Your task to perform on an android device: Clear the cart on amazon. Add razer kraken to the cart on amazon Image 0: 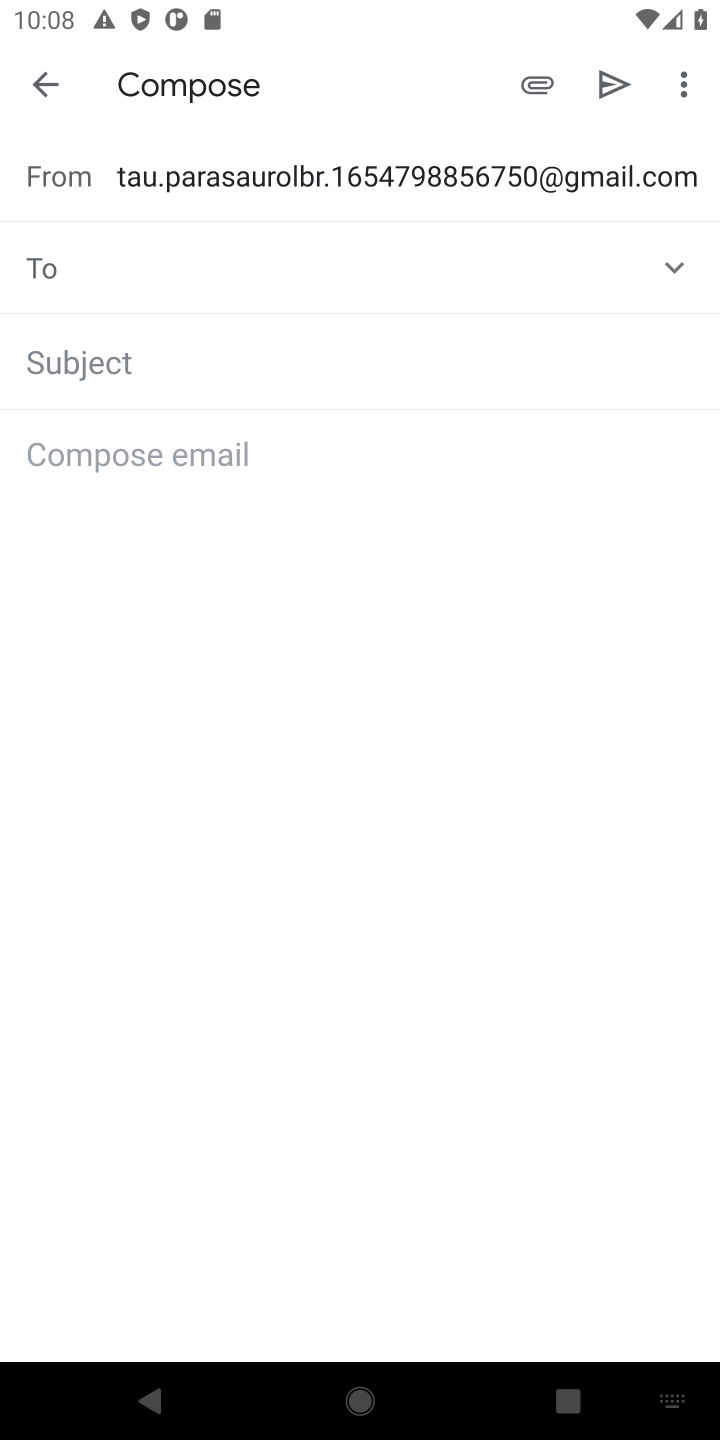
Step 0: press home button
Your task to perform on an android device: Clear the cart on amazon. Add razer kraken to the cart on amazon Image 1: 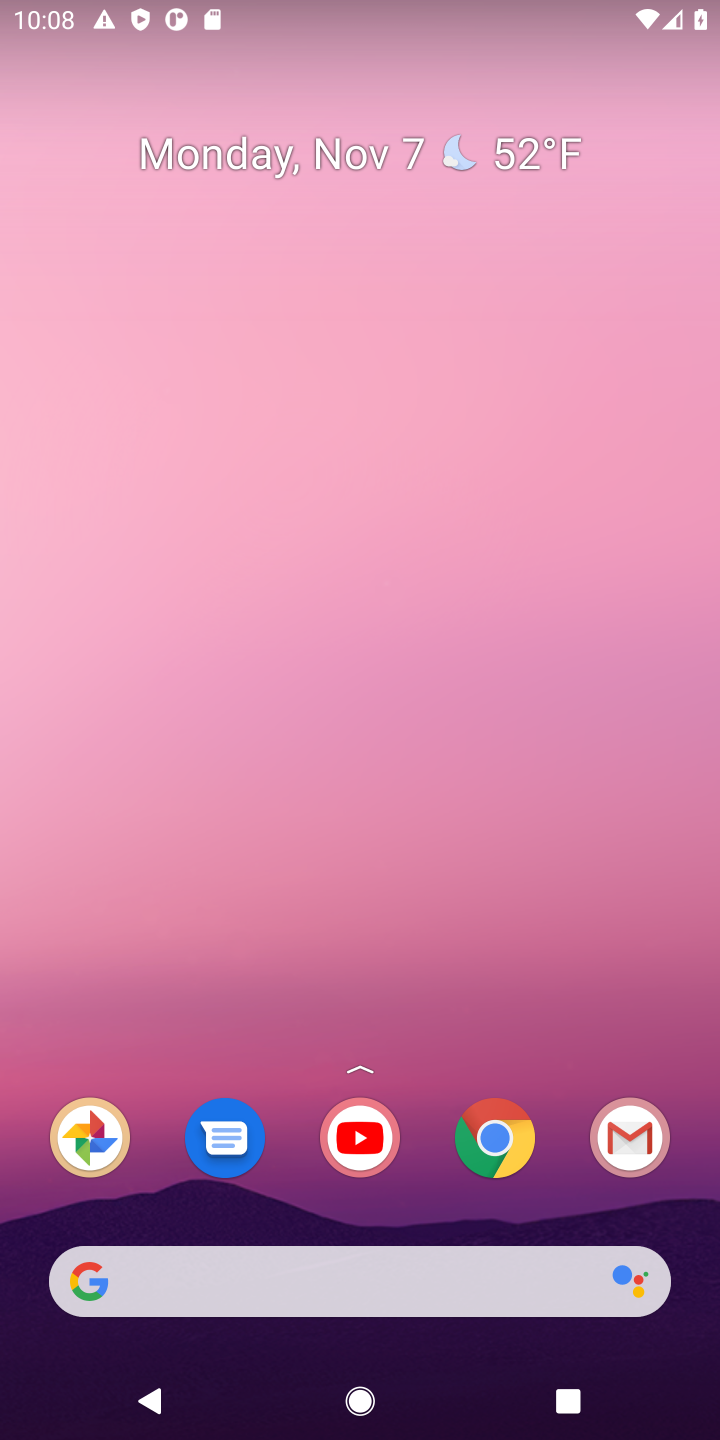
Step 1: drag from (429, 648) to (418, 124)
Your task to perform on an android device: Clear the cart on amazon. Add razer kraken to the cart on amazon Image 2: 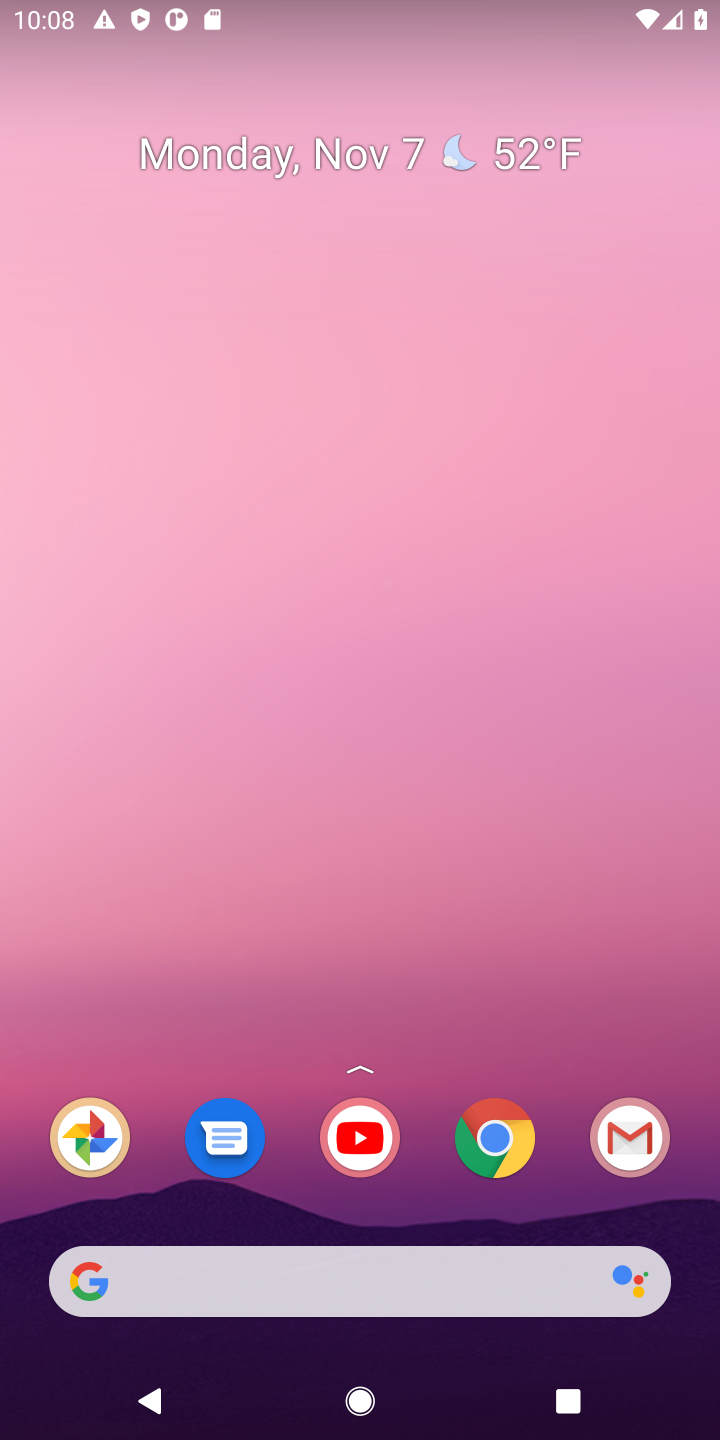
Step 2: drag from (455, 1096) to (467, 256)
Your task to perform on an android device: Clear the cart on amazon. Add razer kraken to the cart on amazon Image 3: 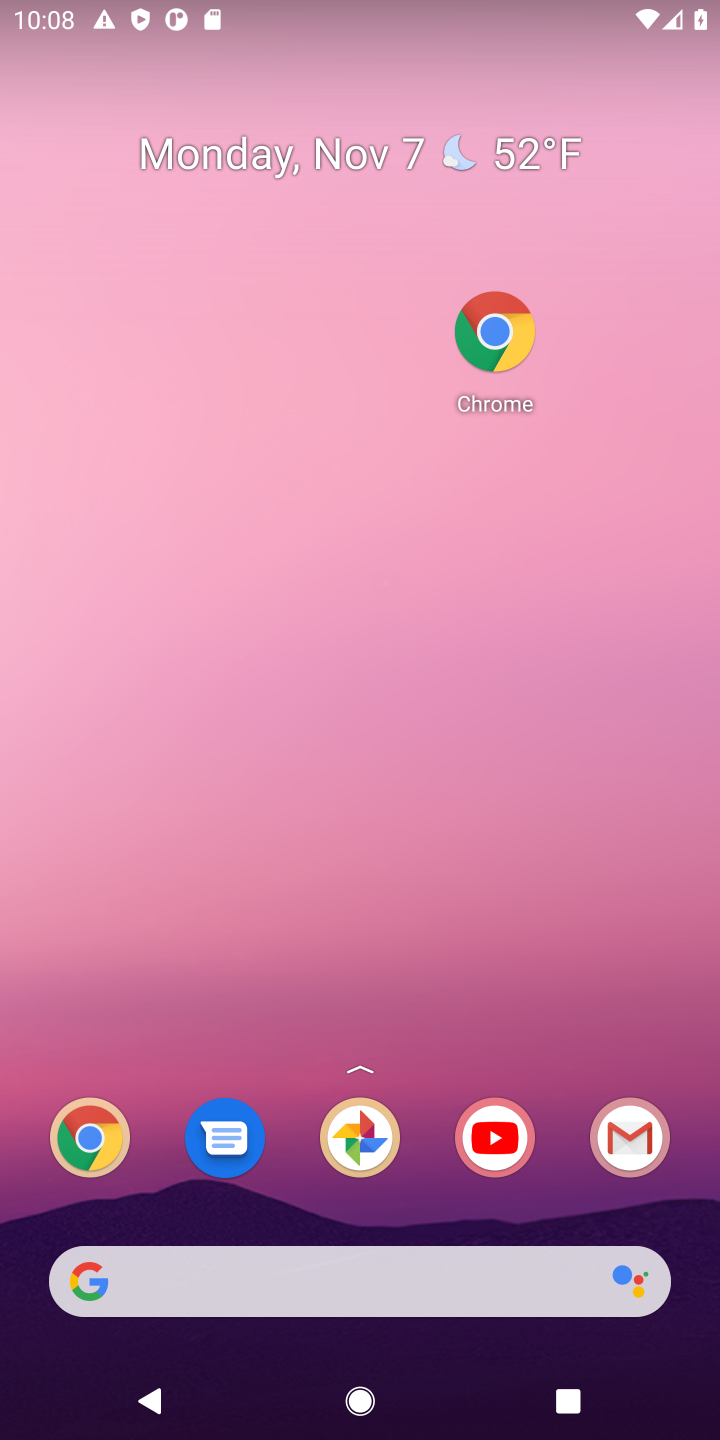
Step 3: drag from (407, 965) to (359, 207)
Your task to perform on an android device: Clear the cart on amazon. Add razer kraken to the cart on amazon Image 4: 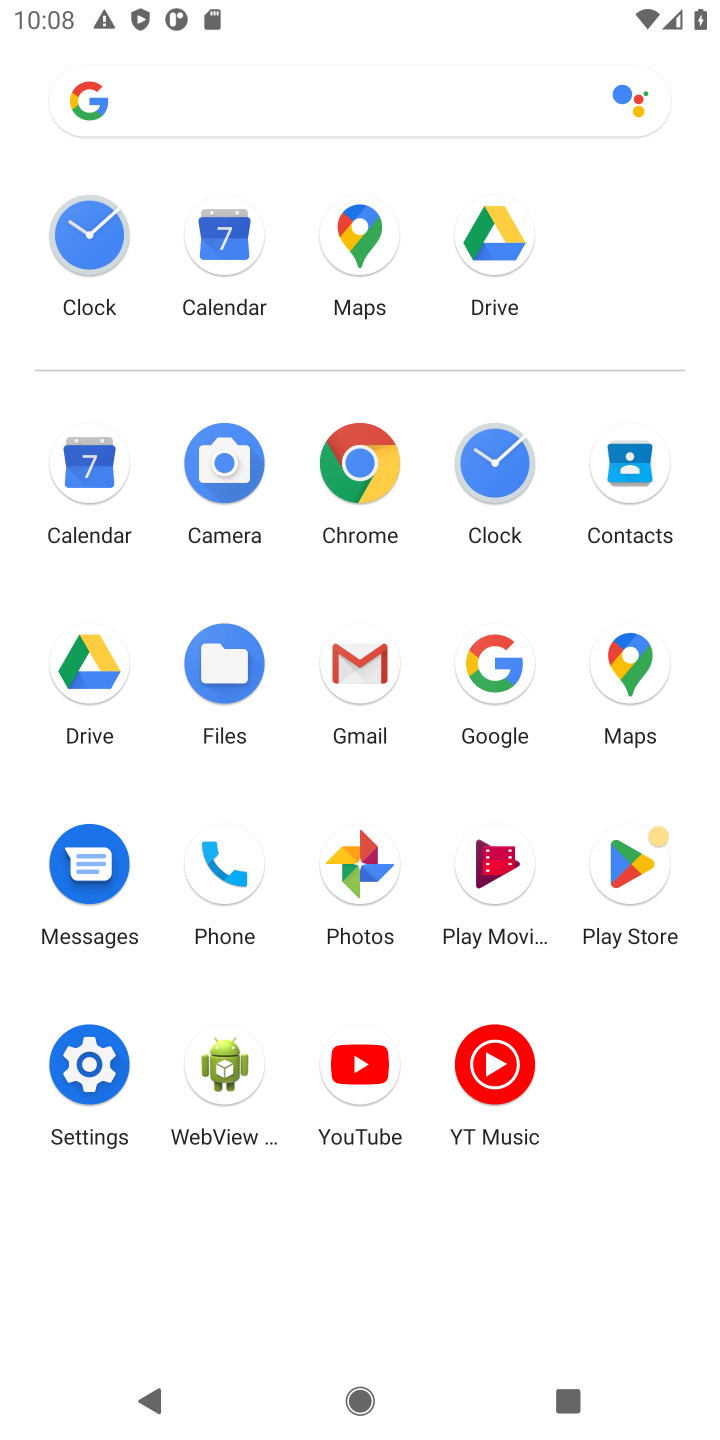
Step 4: click (359, 461)
Your task to perform on an android device: Clear the cart on amazon. Add razer kraken to the cart on amazon Image 5: 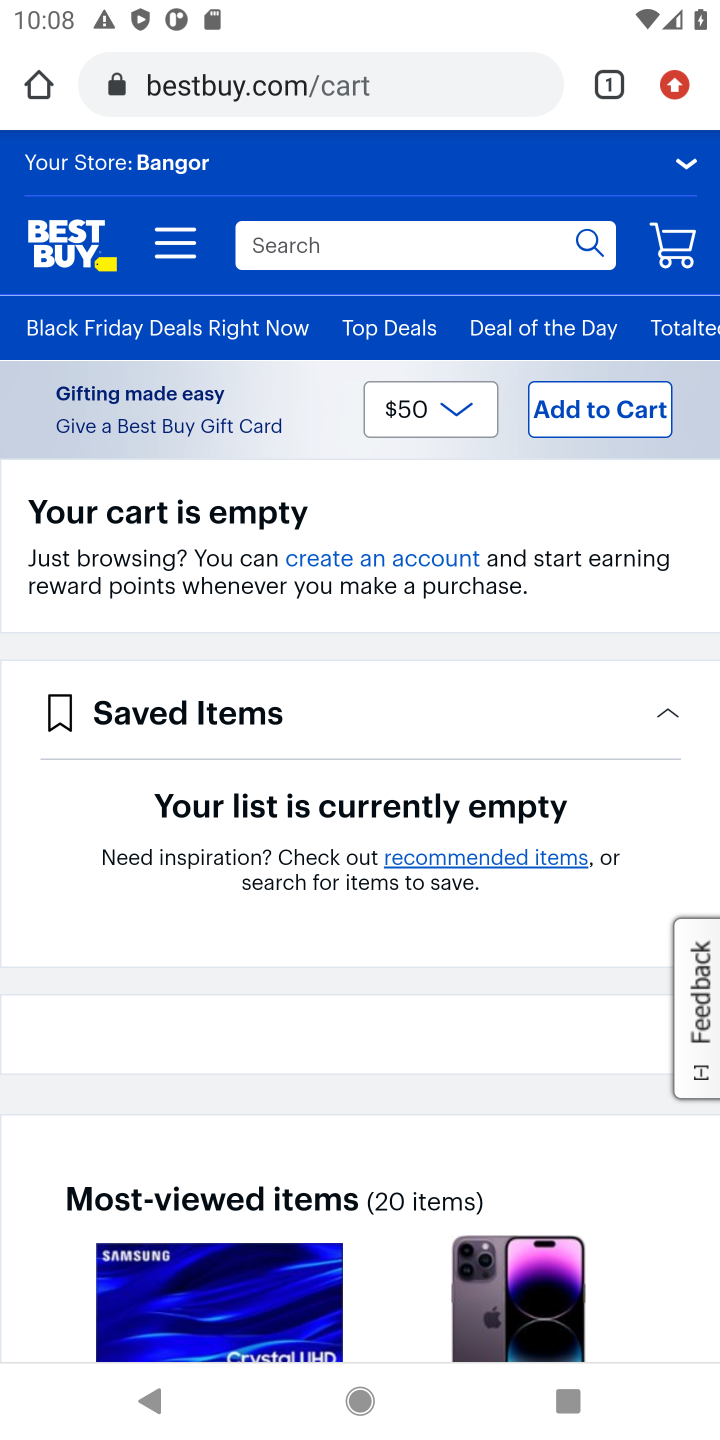
Step 5: click (443, 88)
Your task to perform on an android device: Clear the cart on amazon. Add razer kraken to the cart on amazon Image 6: 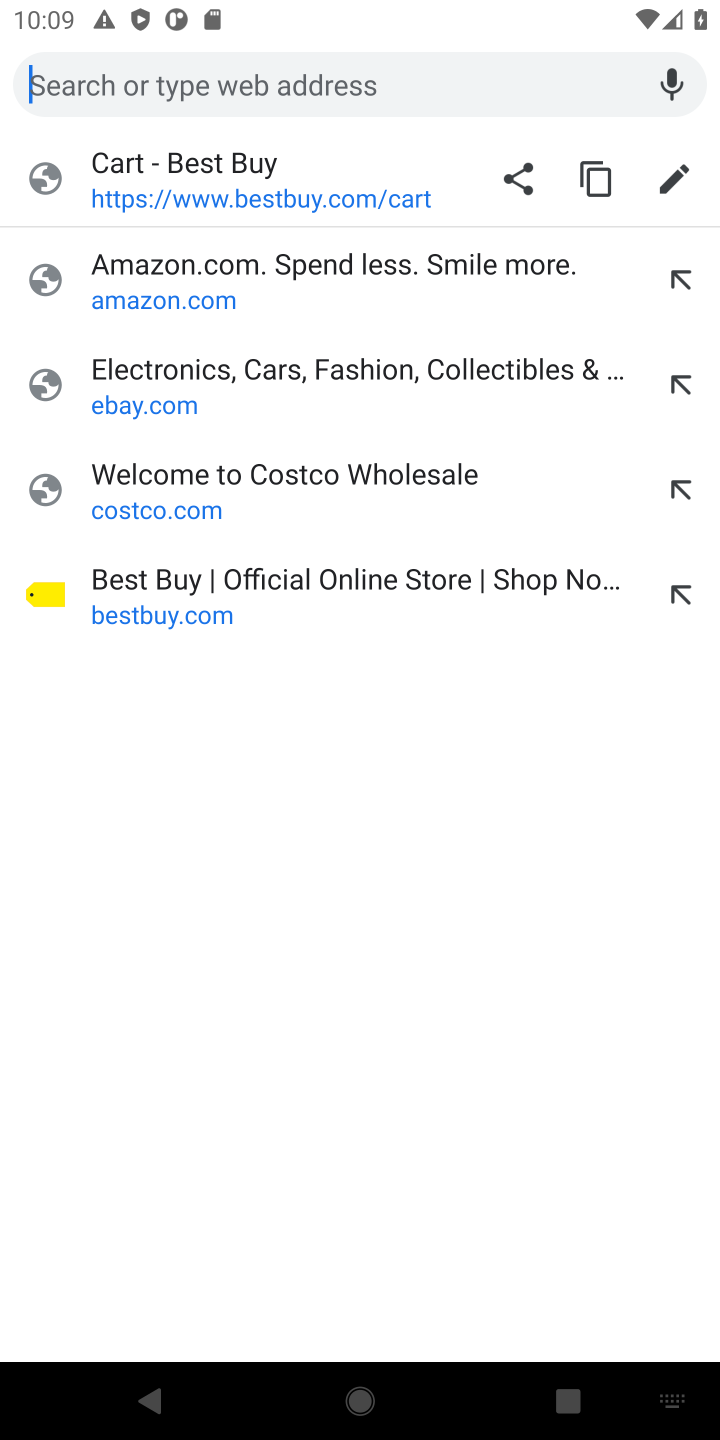
Step 6: type "amazon.com"
Your task to perform on an android device: Clear the cart on amazon. Add razer kraken to the cart on amazon Image 7: 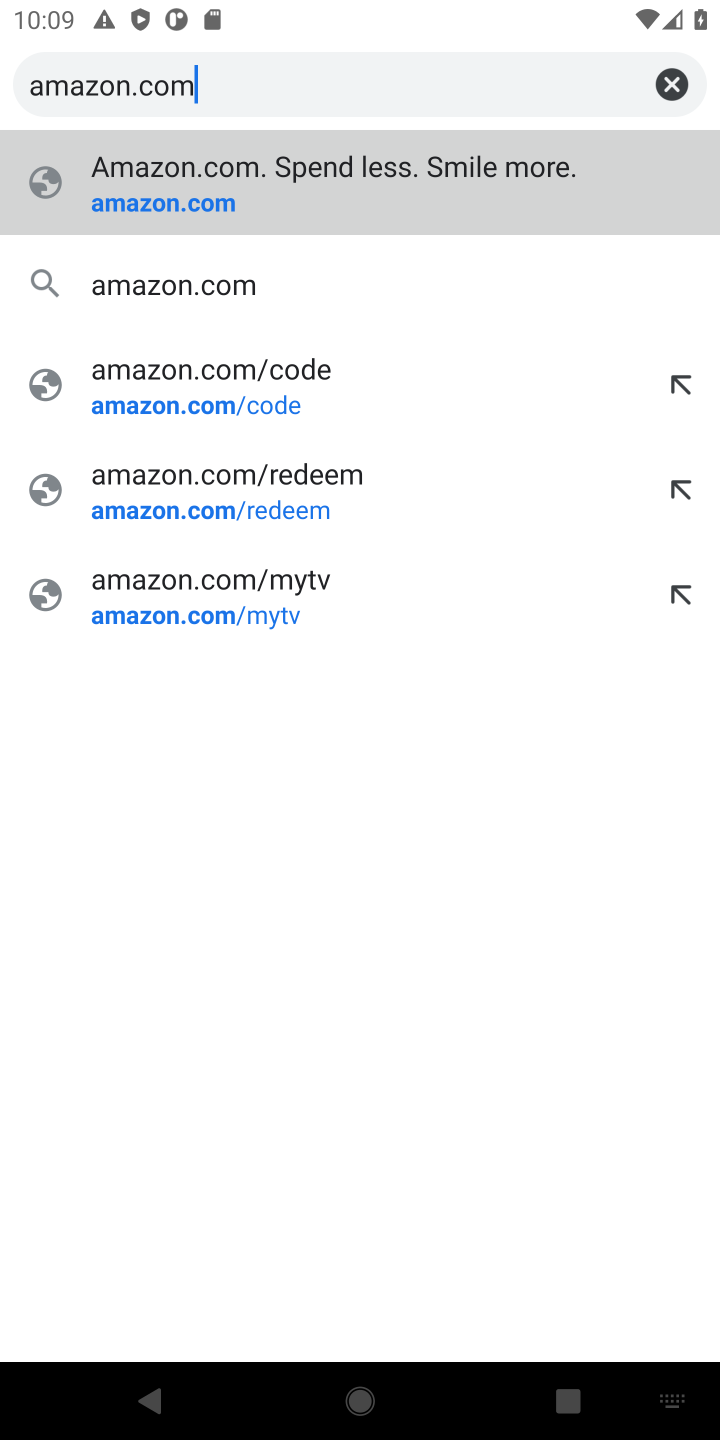
Step 7: press enter
Your task to perform on an android device: Clear the cart on amazon. Add razer kraken to the cart on amazon Image 8: 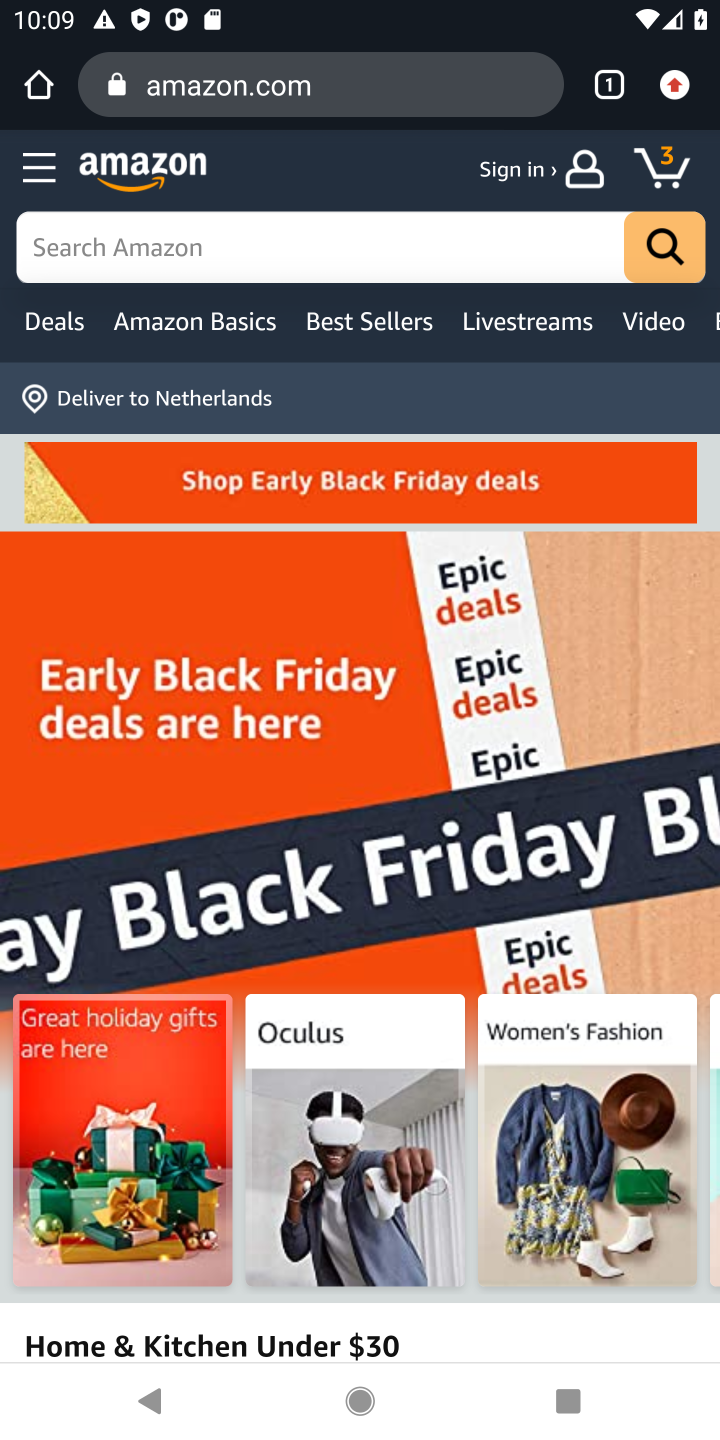
Step 8: click (674, 187)
Your task to perform on an android device: Clear the cart on amazon. Add razer kraken to the cart on amazon Image 9: 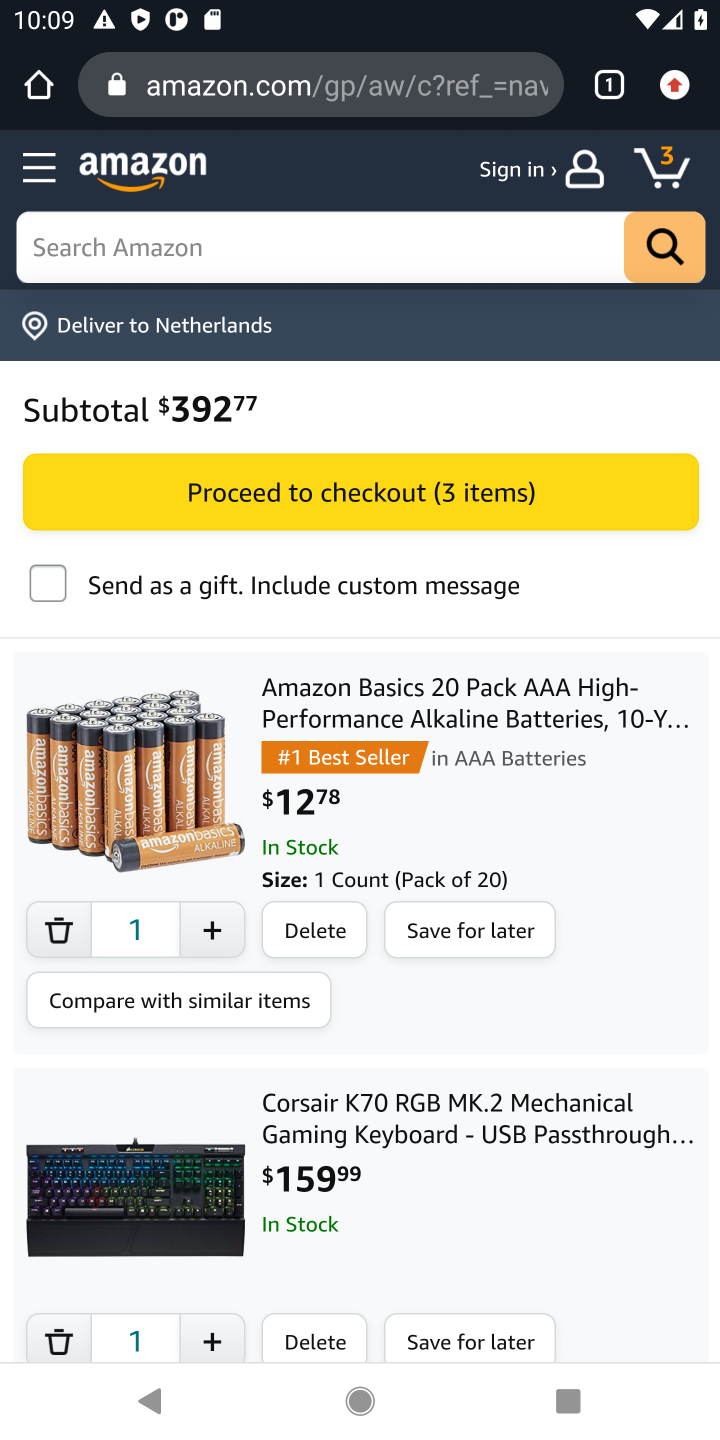
Step 9: click (72, 937)
Your task to perform on an android device: Clear the cart on amazon. Add razer kraken to the cart on amazon Image 10: 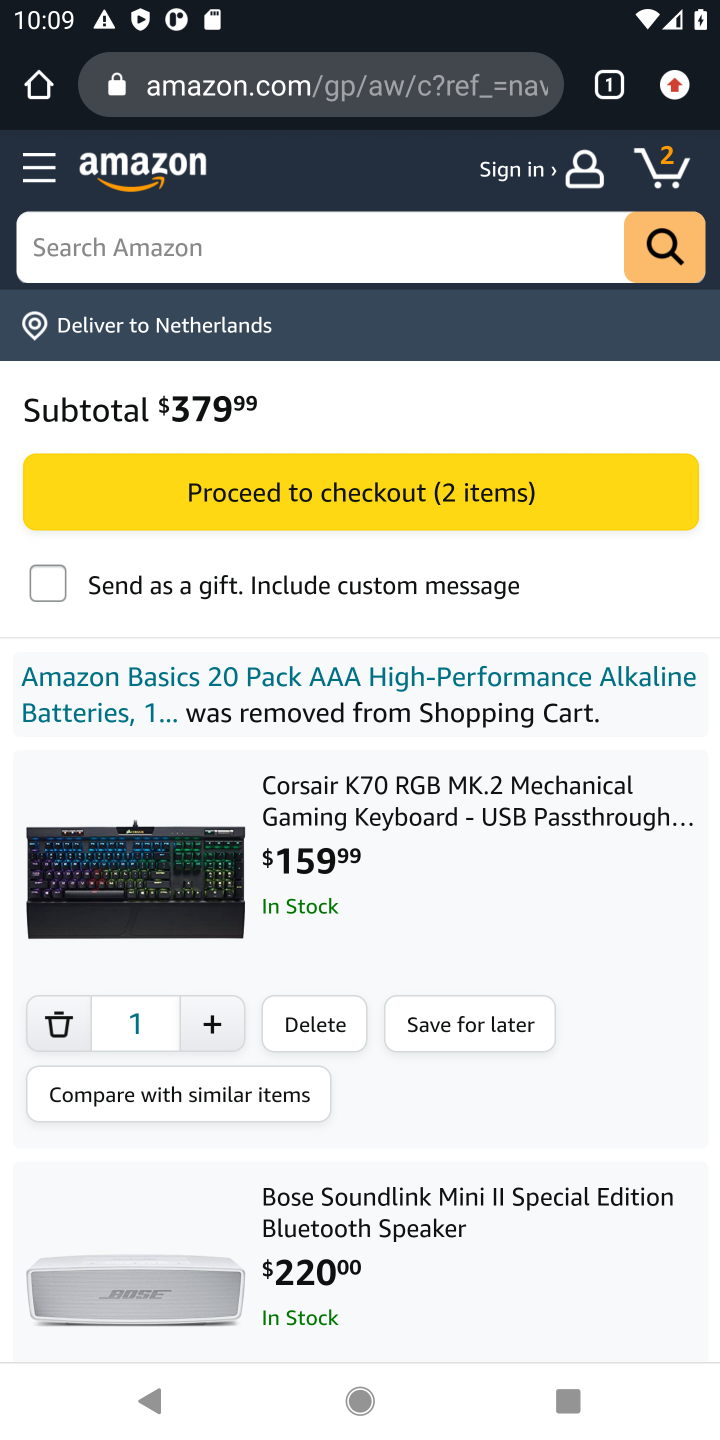
Step 10: click (47, 1029)
Your task to perform on an android device: Clear the cart on amazon. Add razer kraken to the cart on amazon Image 11: 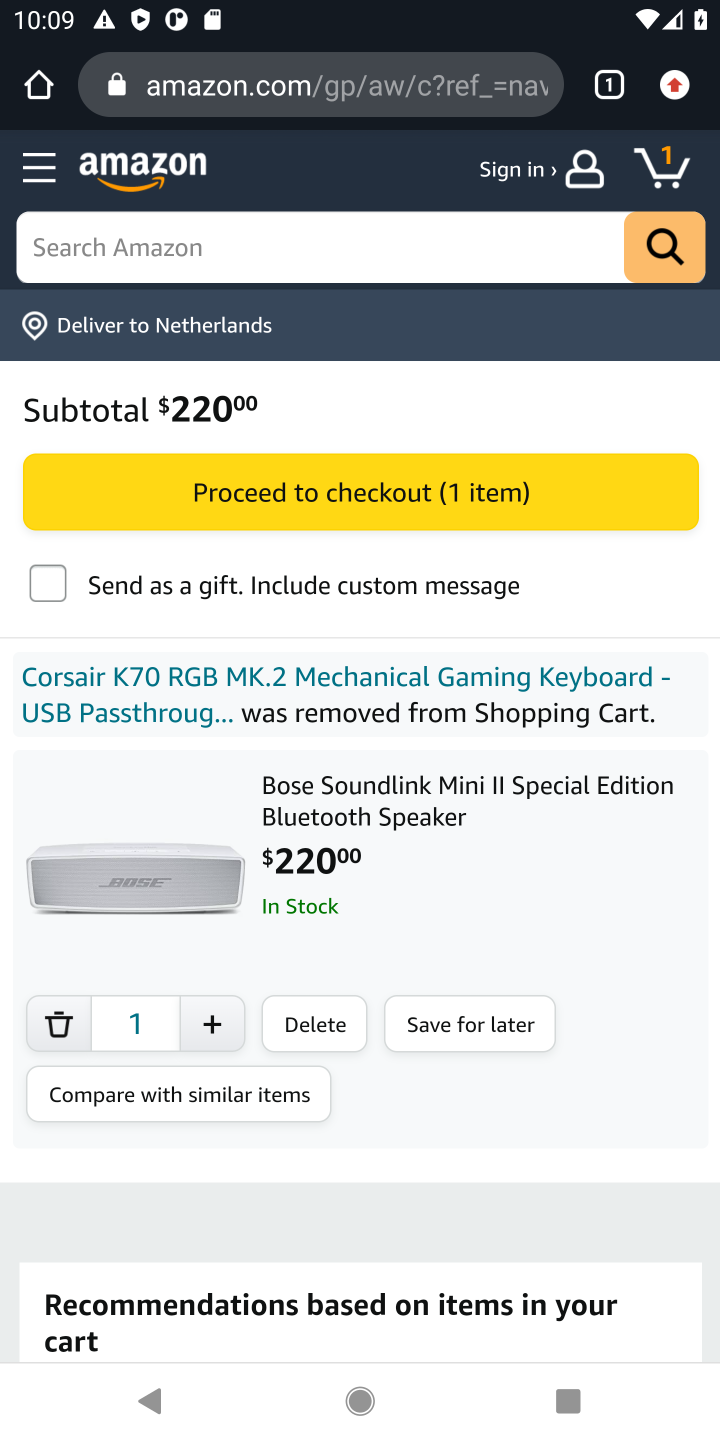
Step 11: click (47, 1029)
Your task to perform on an android device: Clear the cart on amazon. Add razer kraken to the cart on amazon Image 12: 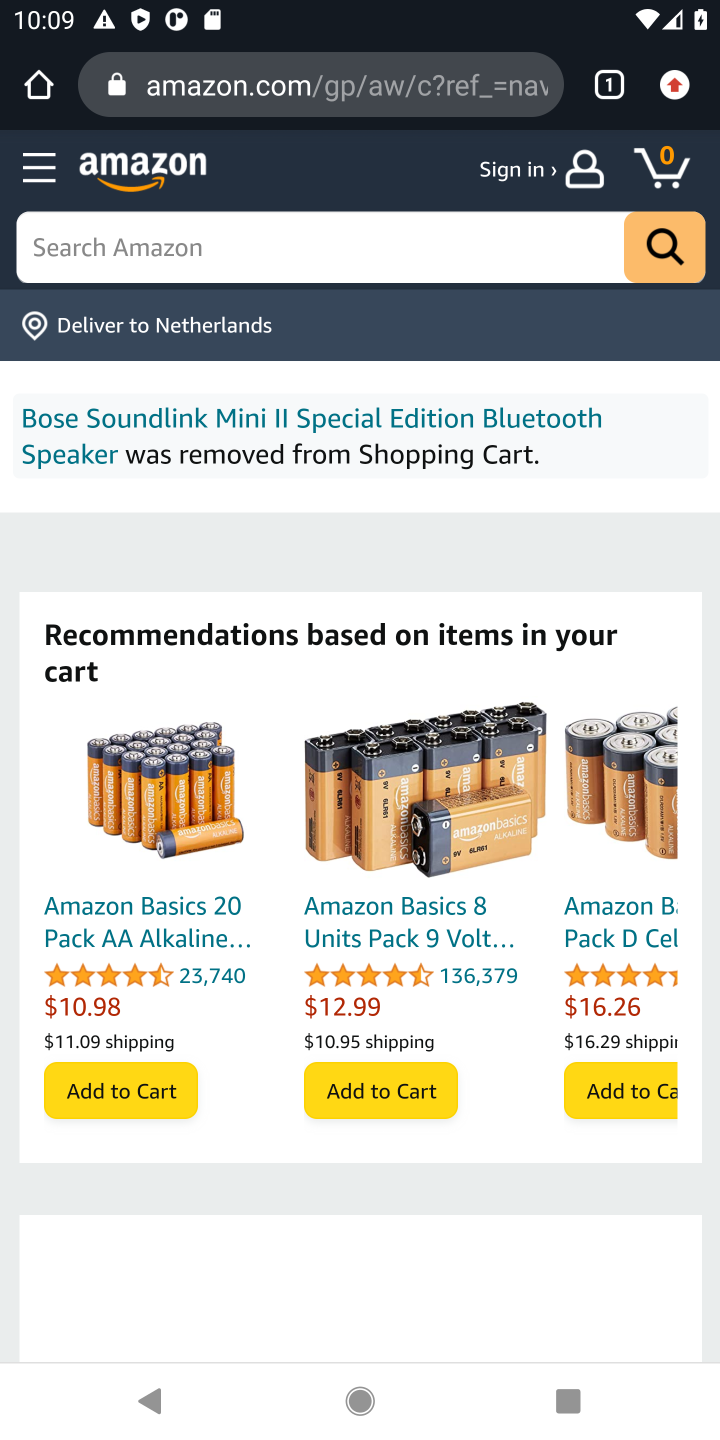
Step 12: click (413, 258)
Your task to perform on an android device: Clear the cart on amazon. Add razer kraken to the cart on amazon Image 13: 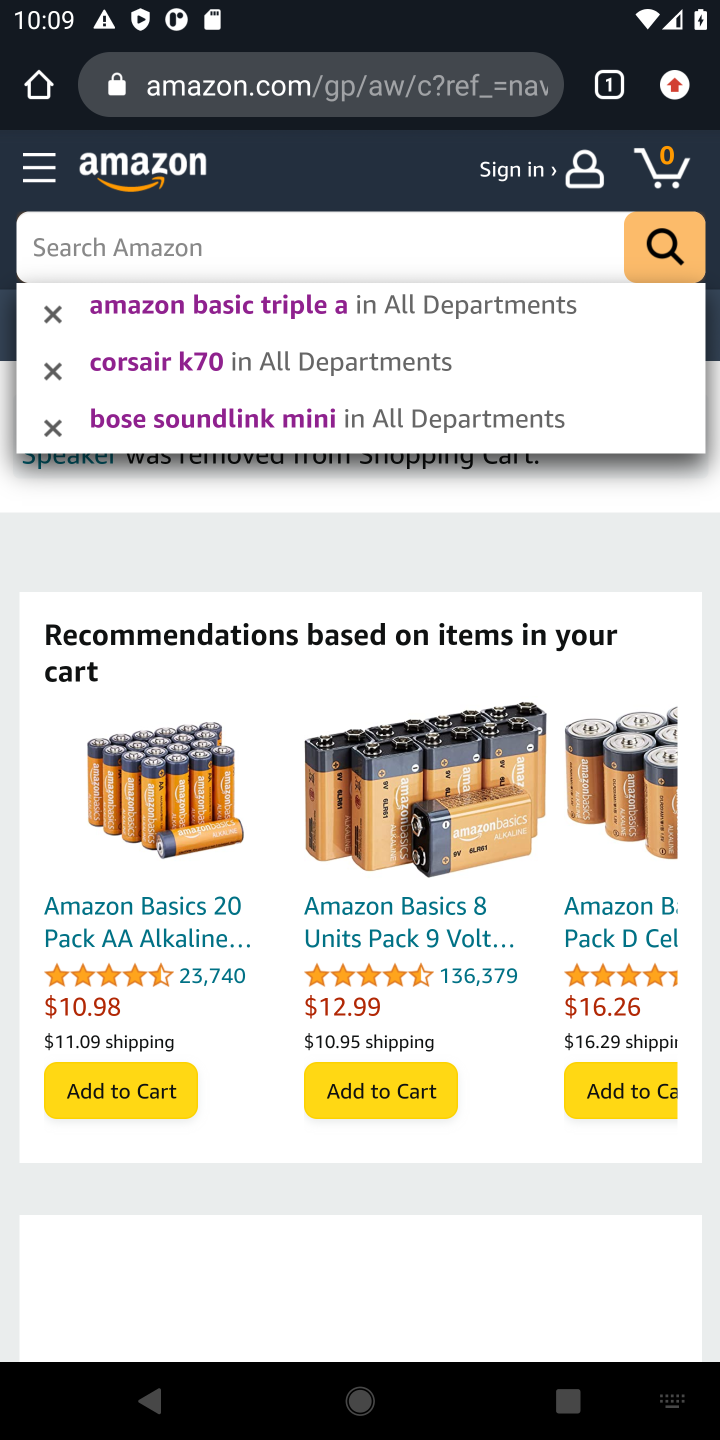
Step 13: type "razer kraken"
Your task to perform on an android device: Clear the cart on amazon. Add razer kraken to the cart on amazon Image 14: 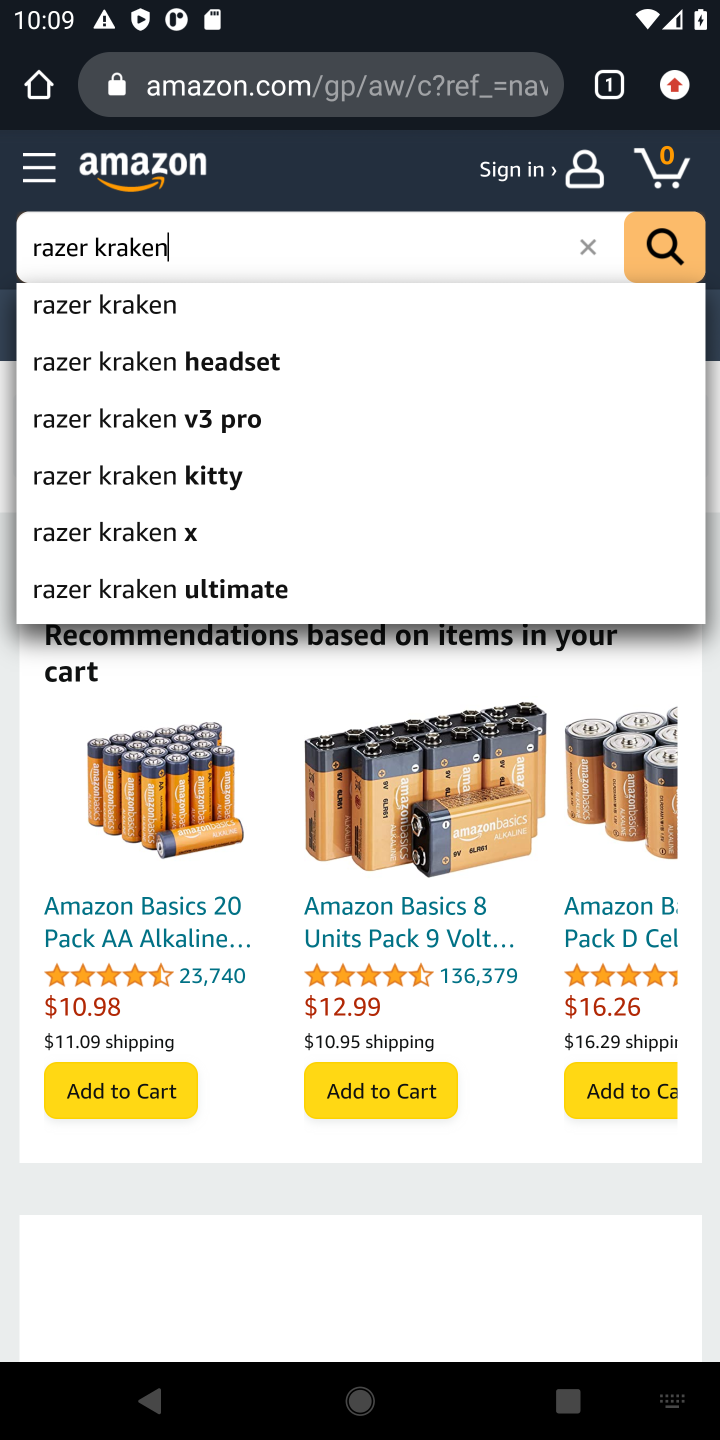
Step 14: press enter
Your task to perform on an android device: Clear the cart on amazon. Add razer kraken to the cart on amazon Image 15: 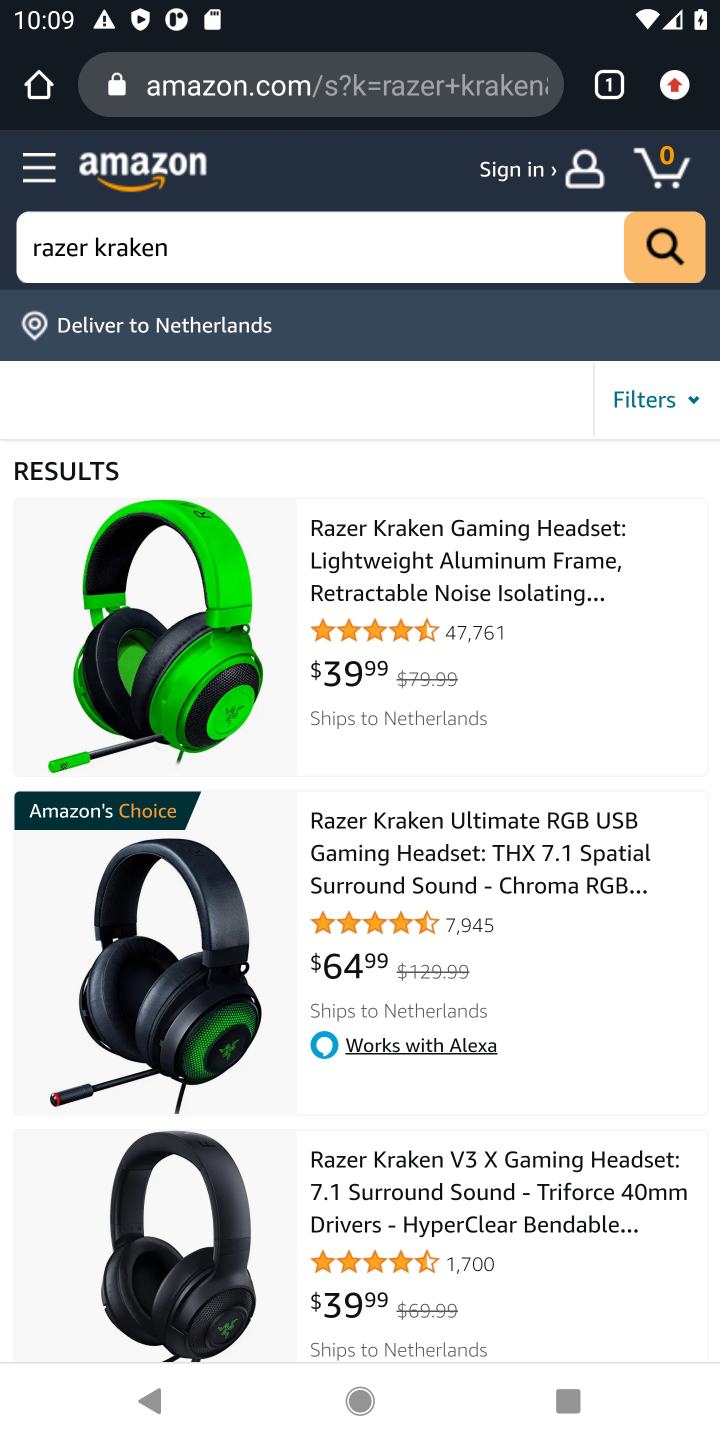
Step 15: click (511, 590)
Your task to perform on an android device: Clear the cart on amazon. Add razer kraken to the cart on amazon Image 16: 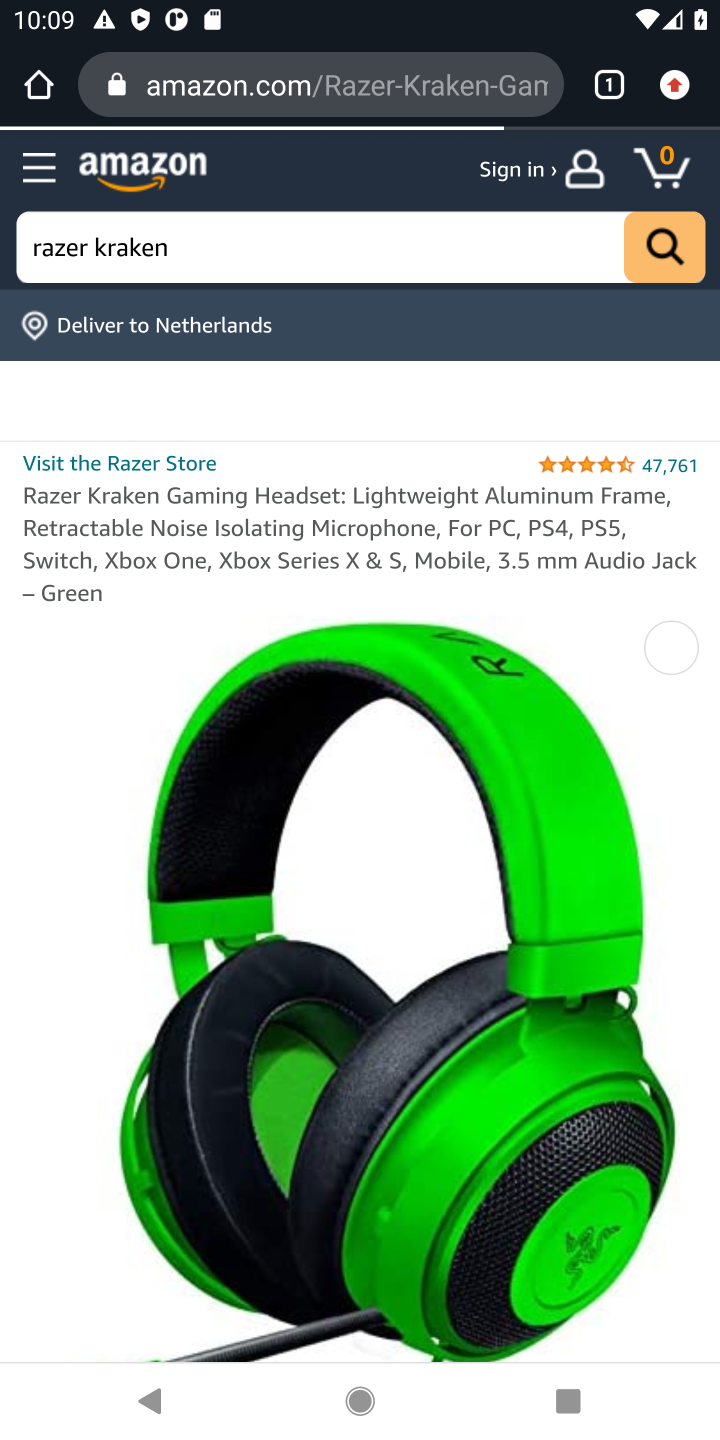
Step 16: drag from (414, 1077) to (481, 260)
Your task to perform on an android device: Clear the cart on amazon. Add razer kraken to the cart on amazon Image 17: 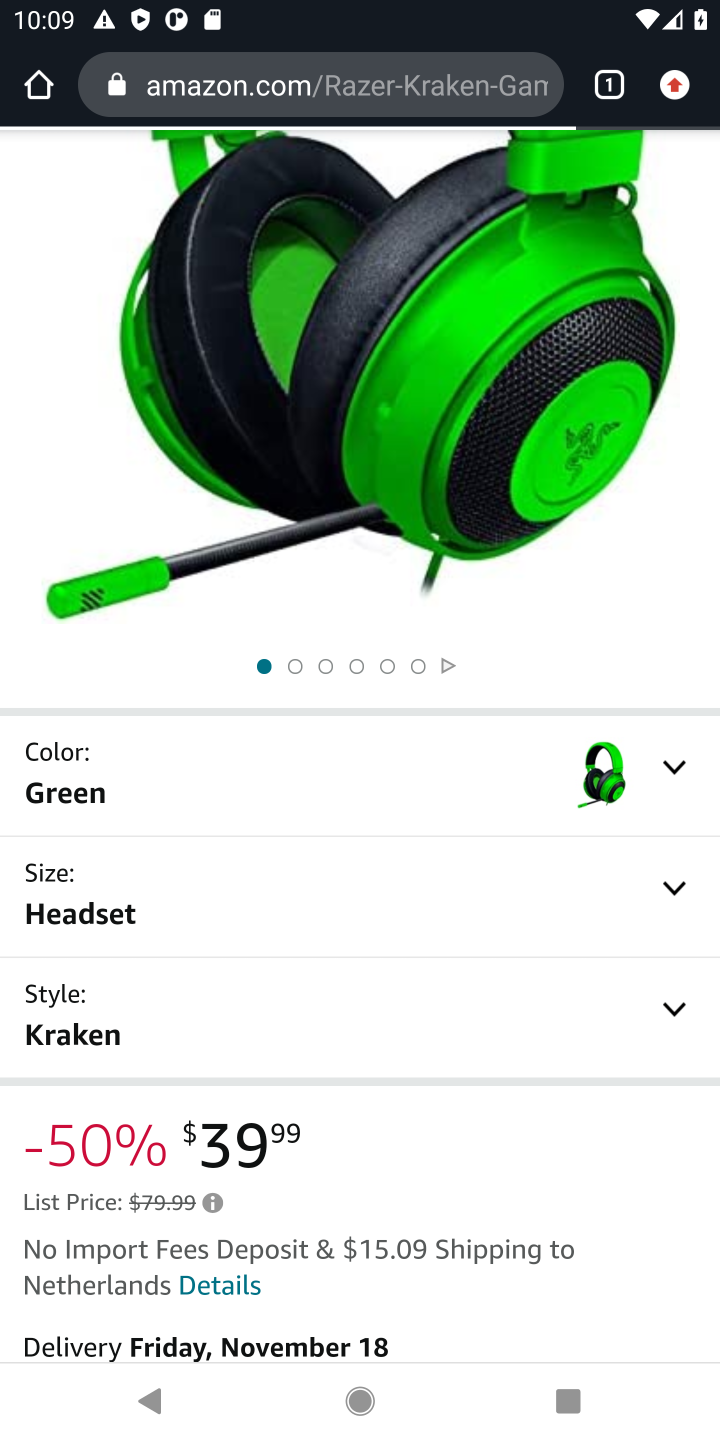
Step 17: drag from (451, 969) to (494, 369)
Your task to perform on an android device: Clear the cart on amazon. Add razer kraken to the cart on amazon Image 18: 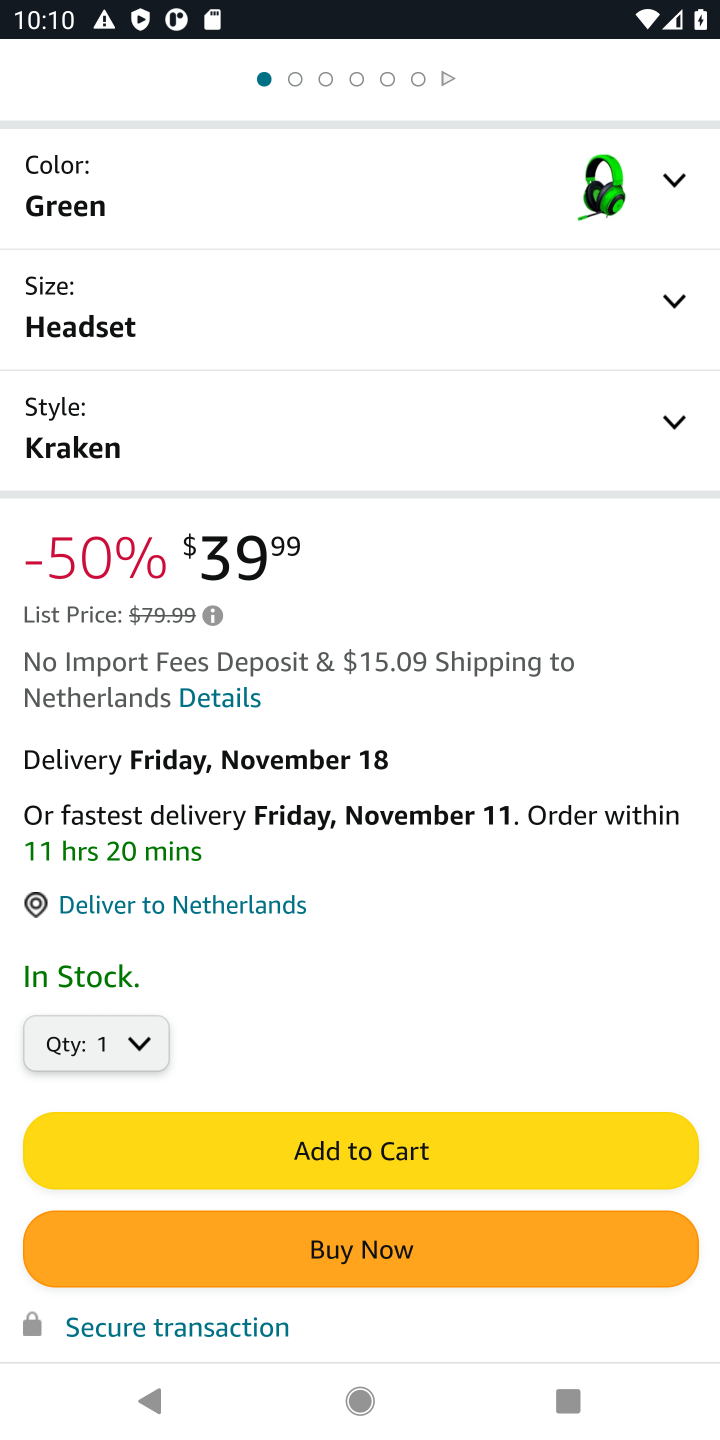
Step 18: click (451, 1152)
Your task to perform on an android device: Clear the cart on amazon. Add razer kraken to the cart on amazon Image 19: 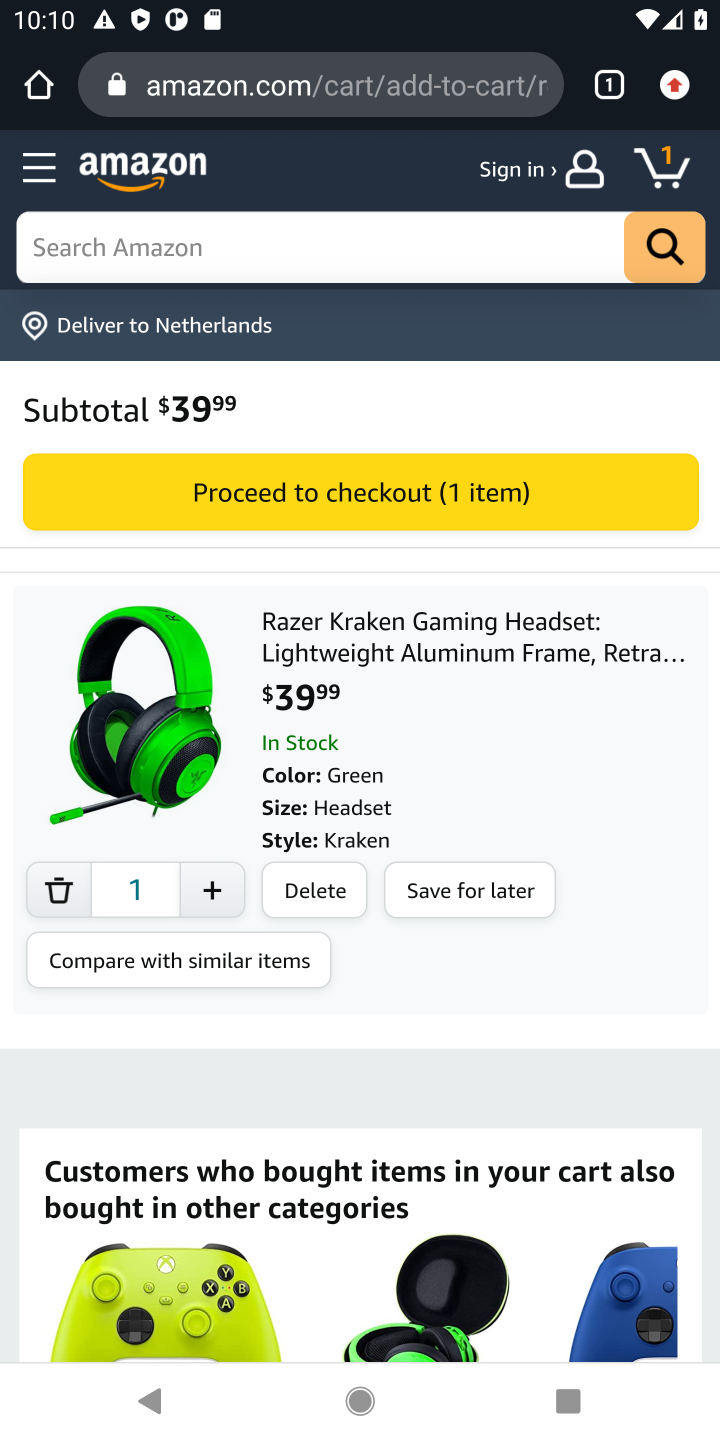
Step 19: task complete